Your task to perform on an android device: Open settings on Google Maps Image 0: 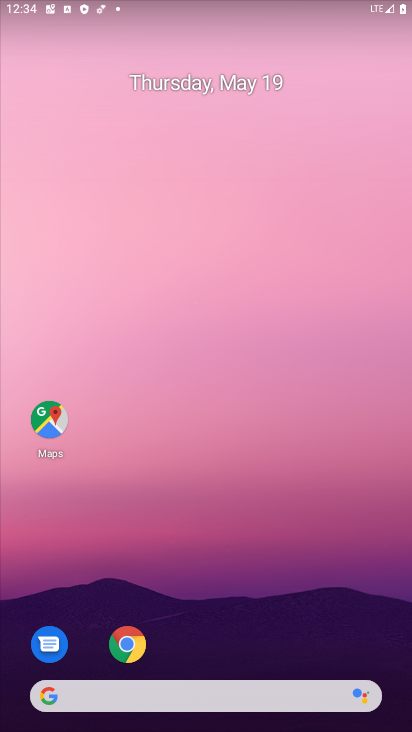
Step 0: drag from (325, 646) to (262, 84)
Your task to perform on an android device: Open settings on Google Maps Image 1: 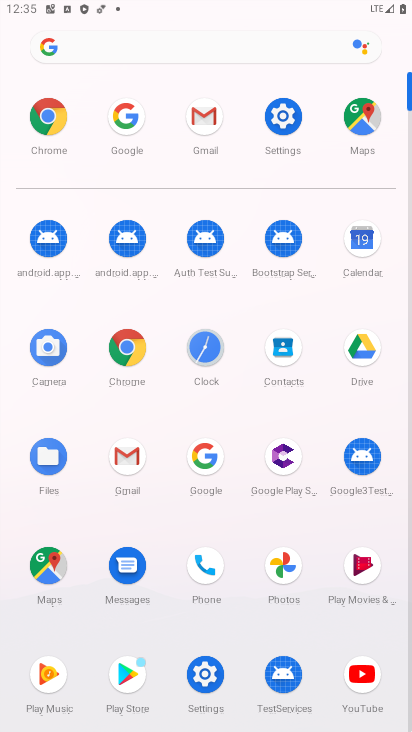
Step 1: click (354, 120)
Your task to perform on an android device: Open settings on Google Maps Image 2: 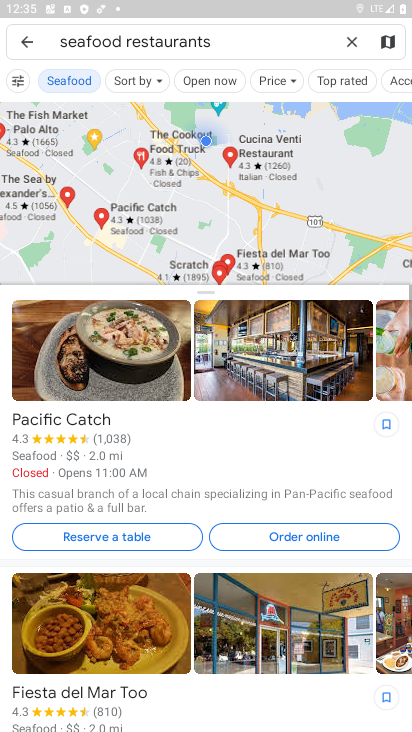
Step 2: click (349, 38)
Your task to perform on an android device: Open settings on Google Maps Image 3: 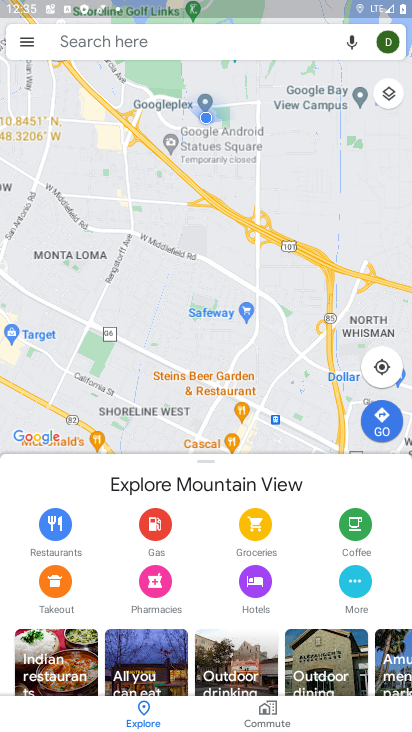
Step 3: click (17, 41)
Your task to perform on an android device: Open settings on Google Maps Image 4: 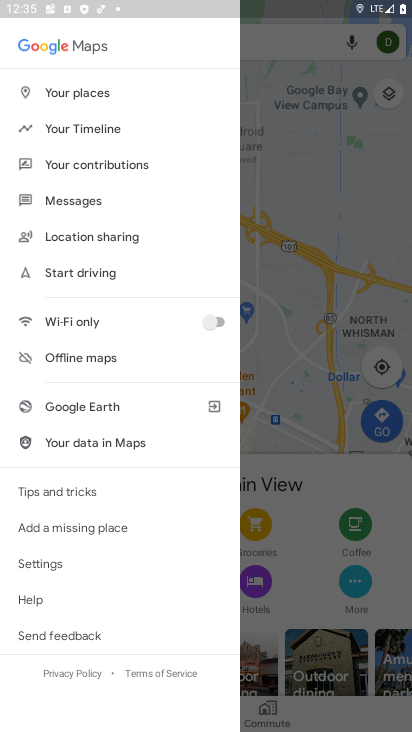
Step 4: click (85, 560)
Your task to perform on an android device: Open settings on Google Maps Image 5: 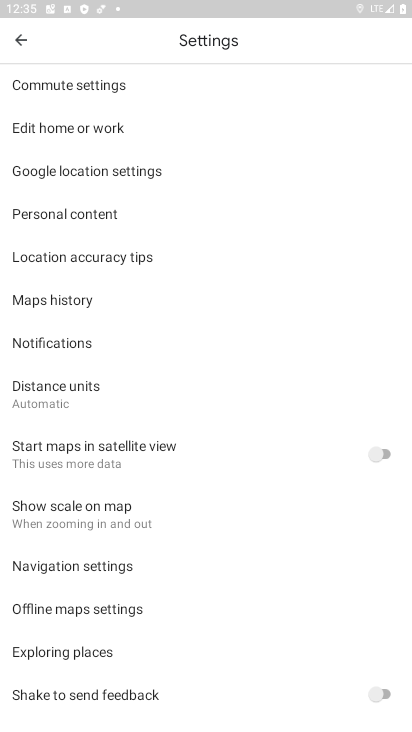
Step 5: task complete